Your task to perform on an android device: toggle notifications settings in the gmail app Image 0: 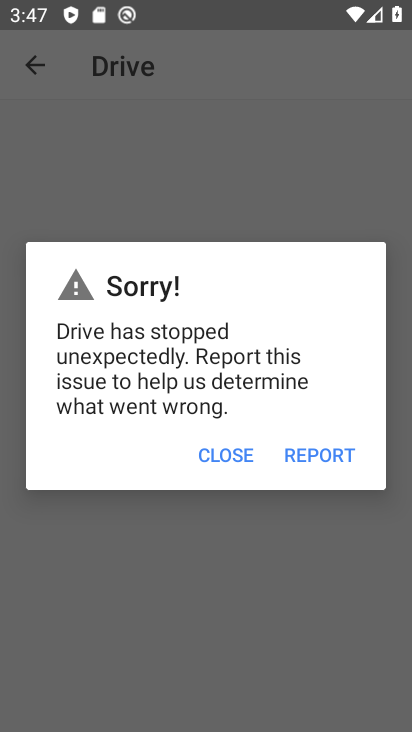
Step 0: press home button
Your task to perform on an android device: toggle notifications settings in the gmail app Image 1: 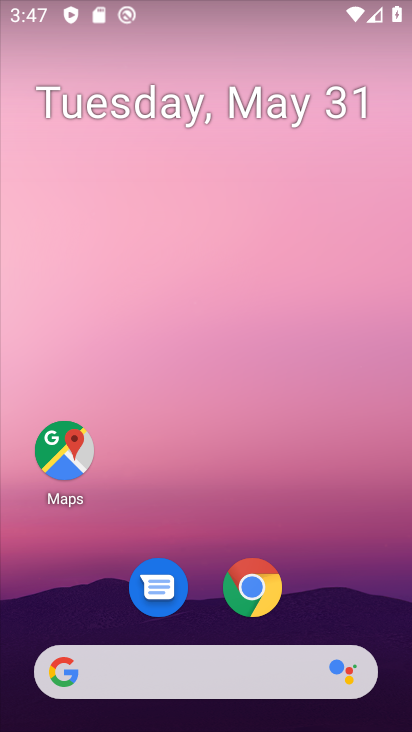
Step 1: drag from (172, 566) to (275, 97)
Your task to perform on an android device: toggle notifications settings in the gmail app Image 2: 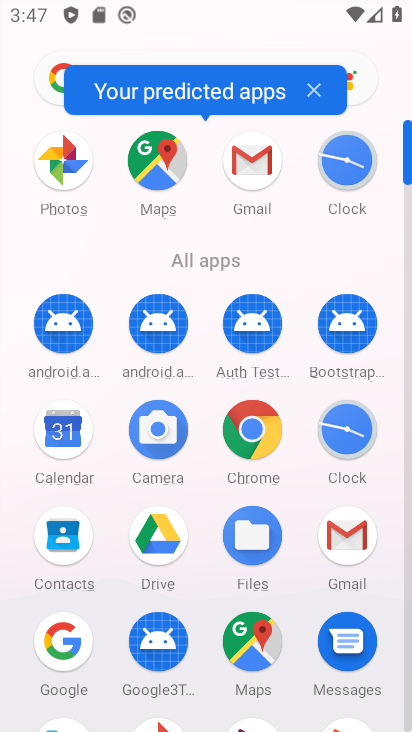
Step 2: click (342, 537)
Your task to perform on an android device: toggle notifications settings in the gmail app Image 3: 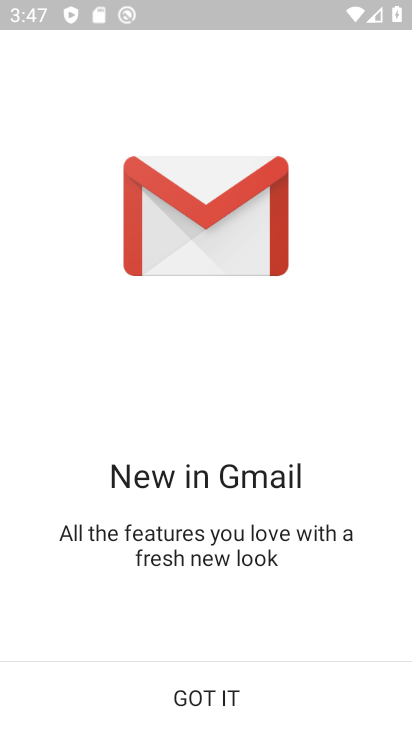
Step 3: click (226, 695)
Your task to perform on an android device: toggle notifications settings in the gmail app Image 4: 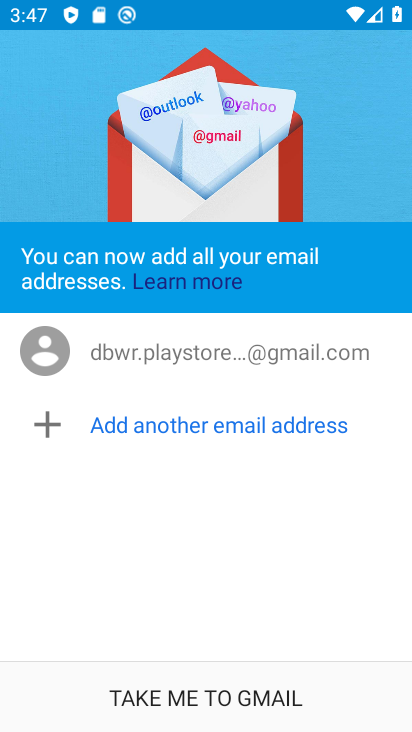
Step 4: click (226, 695)
Your task to perform on an android device: toggle notifications settings in the gmail app Image 5: 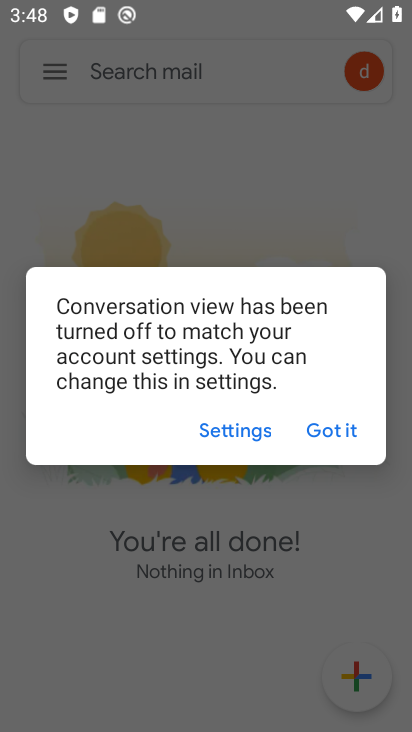
Step 5: click (340, 438)
Your task to perform on an android device: toggle notifications settings in the gmail app Image 6: 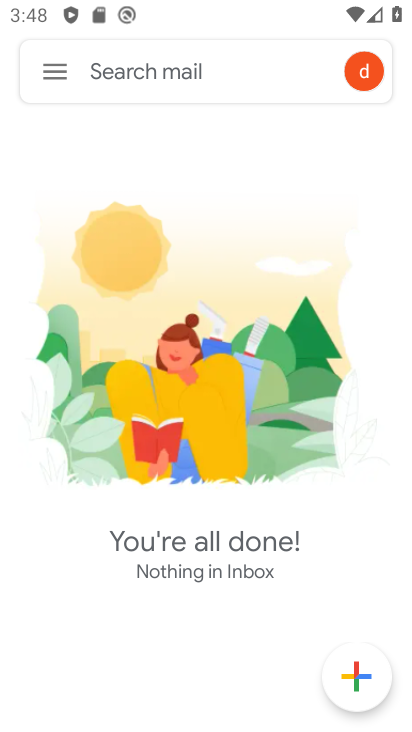
Step 6: click (67, 62)
Your task to perform on an android device: toggle notifications settings in the gmail app Image 7: 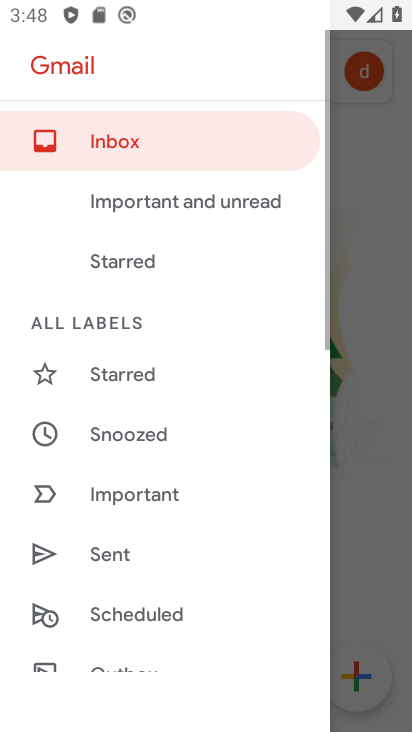
Step 7: drag from (197, 411) to (300, 90)
Your task to perform on an android device: toggle notifications settings in the gmail app Image 8: 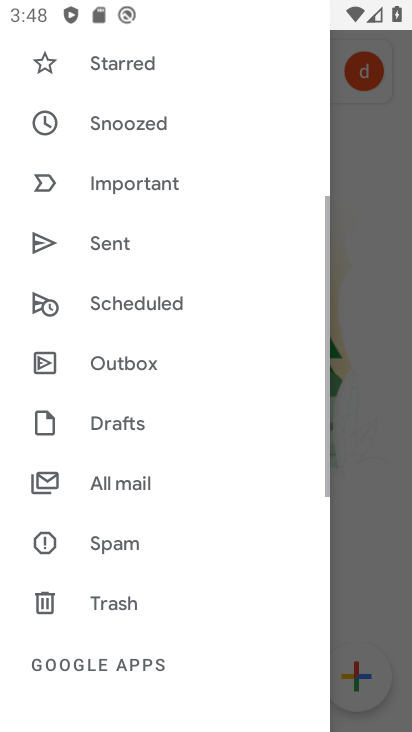
Step 8: drag from (150, 635) to (246, 193)
Your task to perform on an android device: toggle notifications settings in the gmail app Image 9: 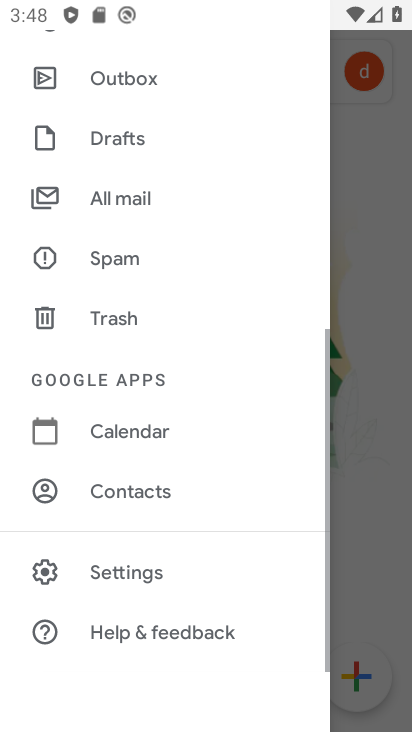
Step 9: click (166, 578)
Your task to perform on an android device: toggle notifications settings in the gmail app Image 10: 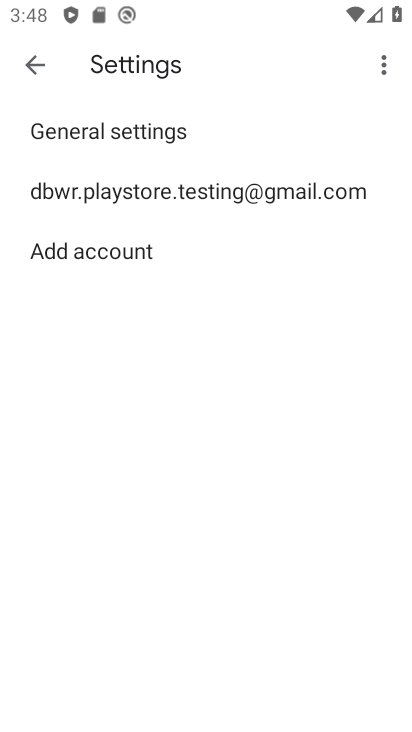
Step 10: click (274, 202)
Your task to perform on an android device: toggle notifications settings in the gmail app Image 11: 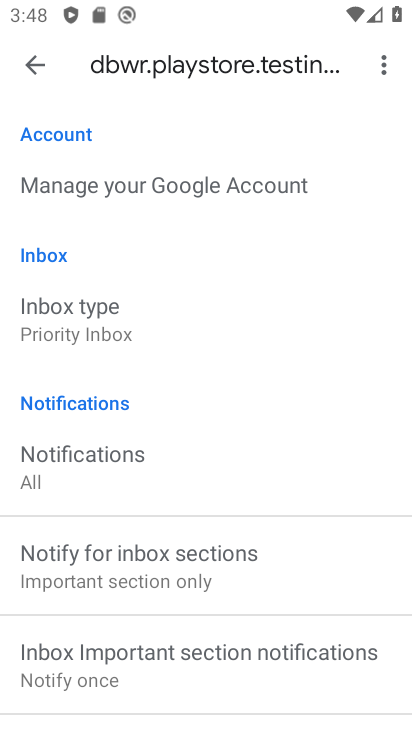
Step 11: drag from (246, 668) to (329, 333)
Your task to perform on an android device: toggle notifications settings in the gmail app Image 12: 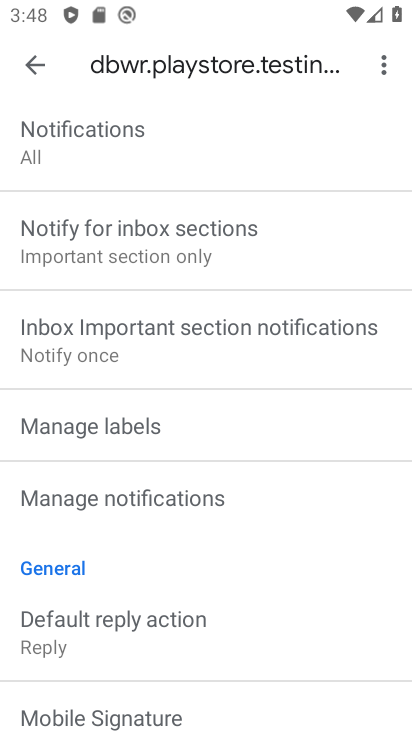
Step 12: click (225, 507)
Your task to perform on an android device: toggle notifications settings in the gmail app Image 13: 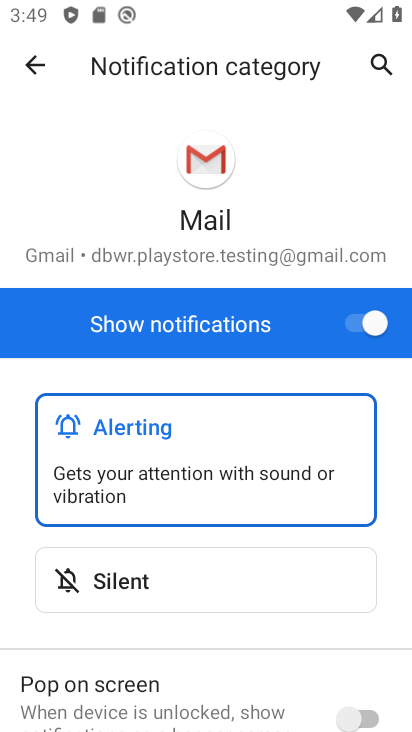
Step 13: click (355, 320)
Your task to perform on an android device: toggle notifications settings in the gmail app Image 14: 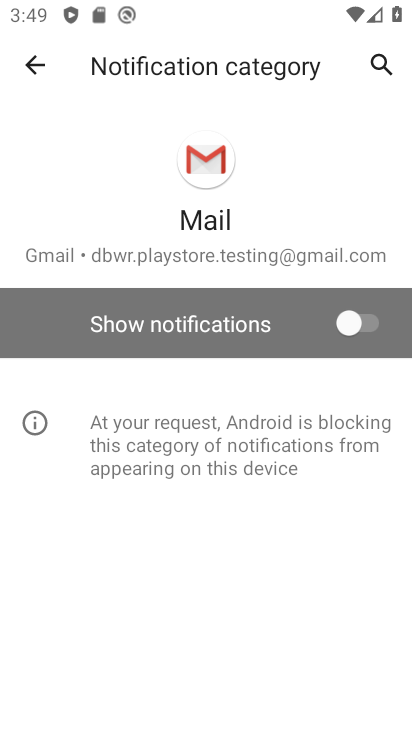
Step 14: task complete